Your task to perform on an android device: turn notification dots on Image 0: 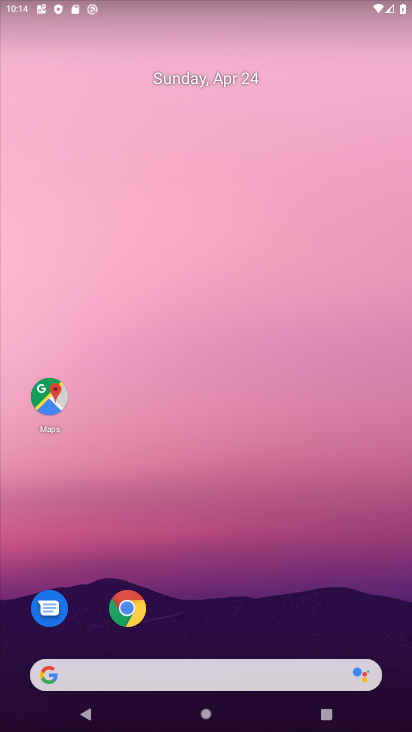
Step 0: drag from (270, 693) to (230, 335)
Your task to perform on an android device: turn notification dots on Image 1: 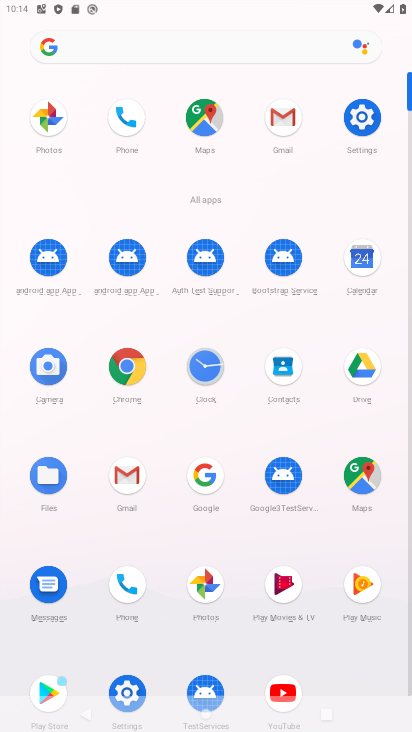
Step 1: click (369, 129)
Your task to perform on an android device: turn notification dots on Image 2: 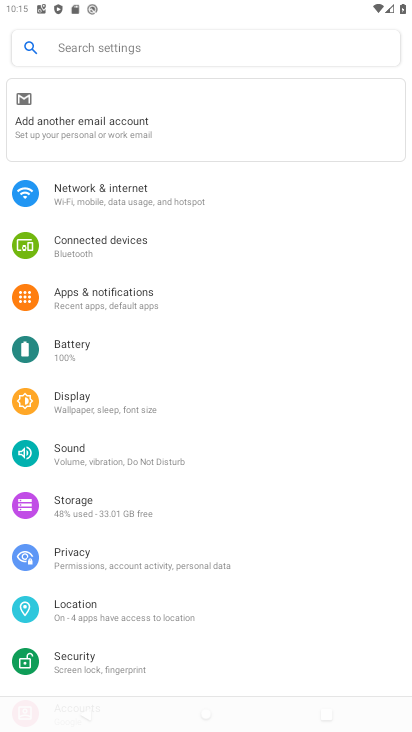
Step 2: click (150, 56)
Your task to perform on an android device: turn notification dots on Image 3: 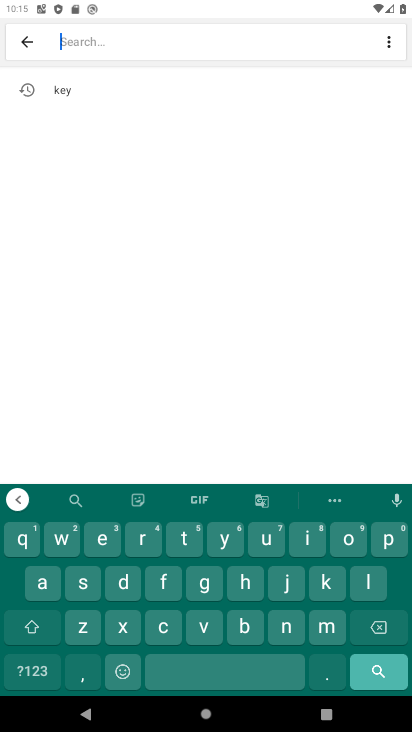
Step 3: click (126, 582)
Your task to perform on an android device: turn notification dots on Image 4: 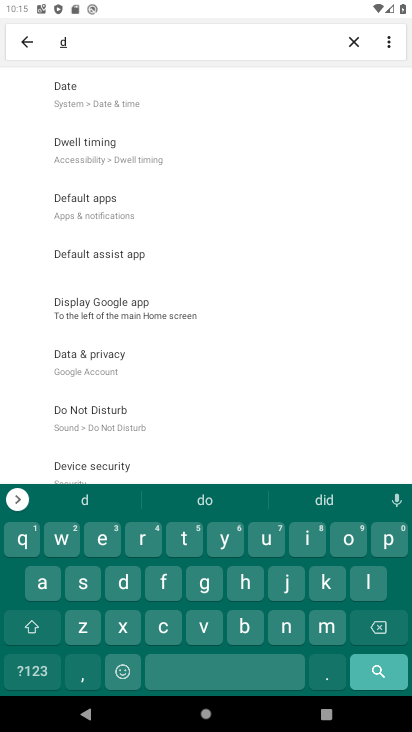
Step 4: click (344, 550)
Your task to perform on an android device: turn notification dots on Image 5: 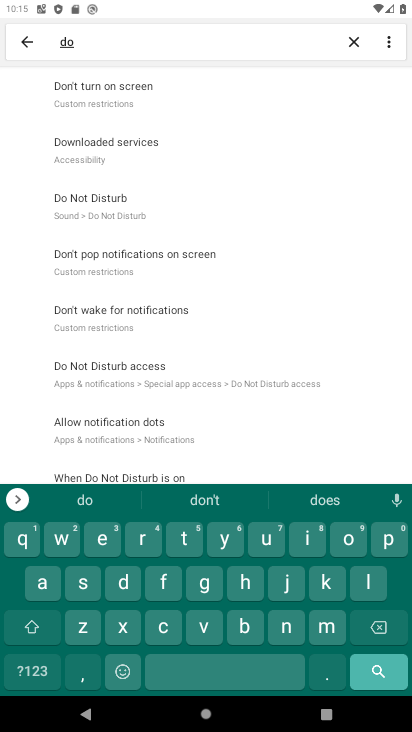
Step 5: click (186, 541)
Your task to perform on an android device: turn notification dots on Image 6: 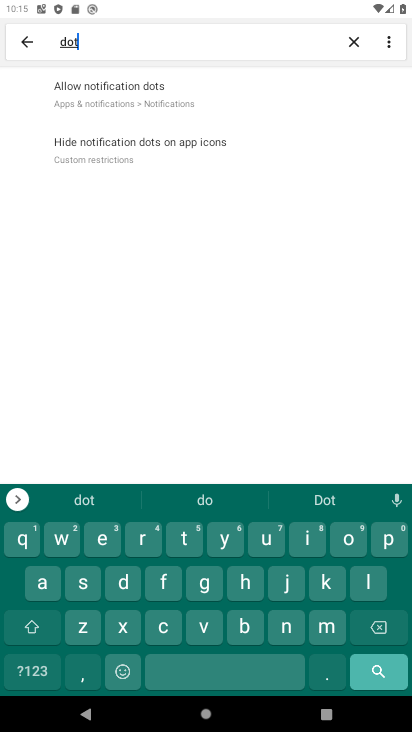
Step 6: click (100, 91)
Your task to perform on an android device: turn notification dots on Image 7: 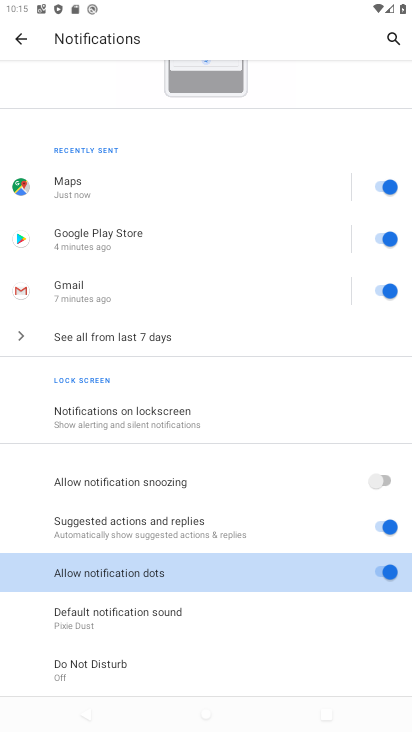
Step 7: click (221, 565)
Your task to perform on an android device: turn notification dots on Image 8: 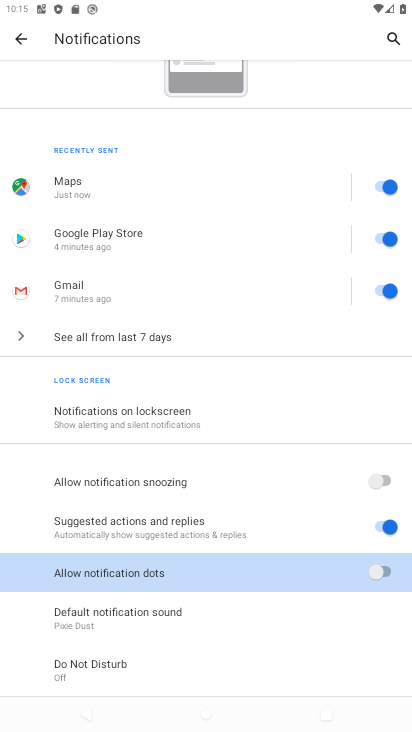
Step 8: click (220, 565)
Your task to perform on an android device: turn notification dots on Image 9: 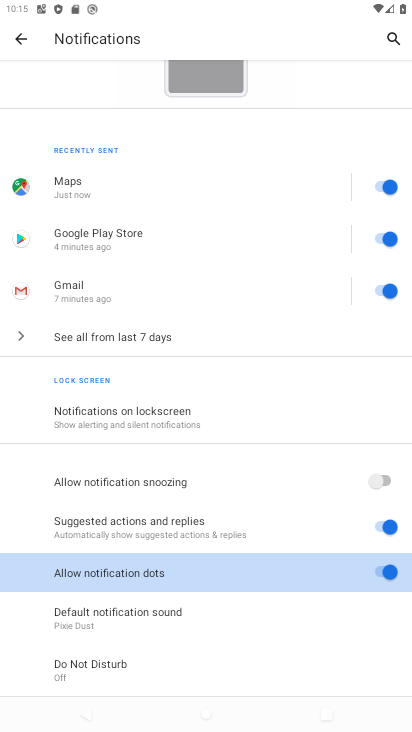
Step 9: task complete